Your task to perform on an android device: check android version Image 0: 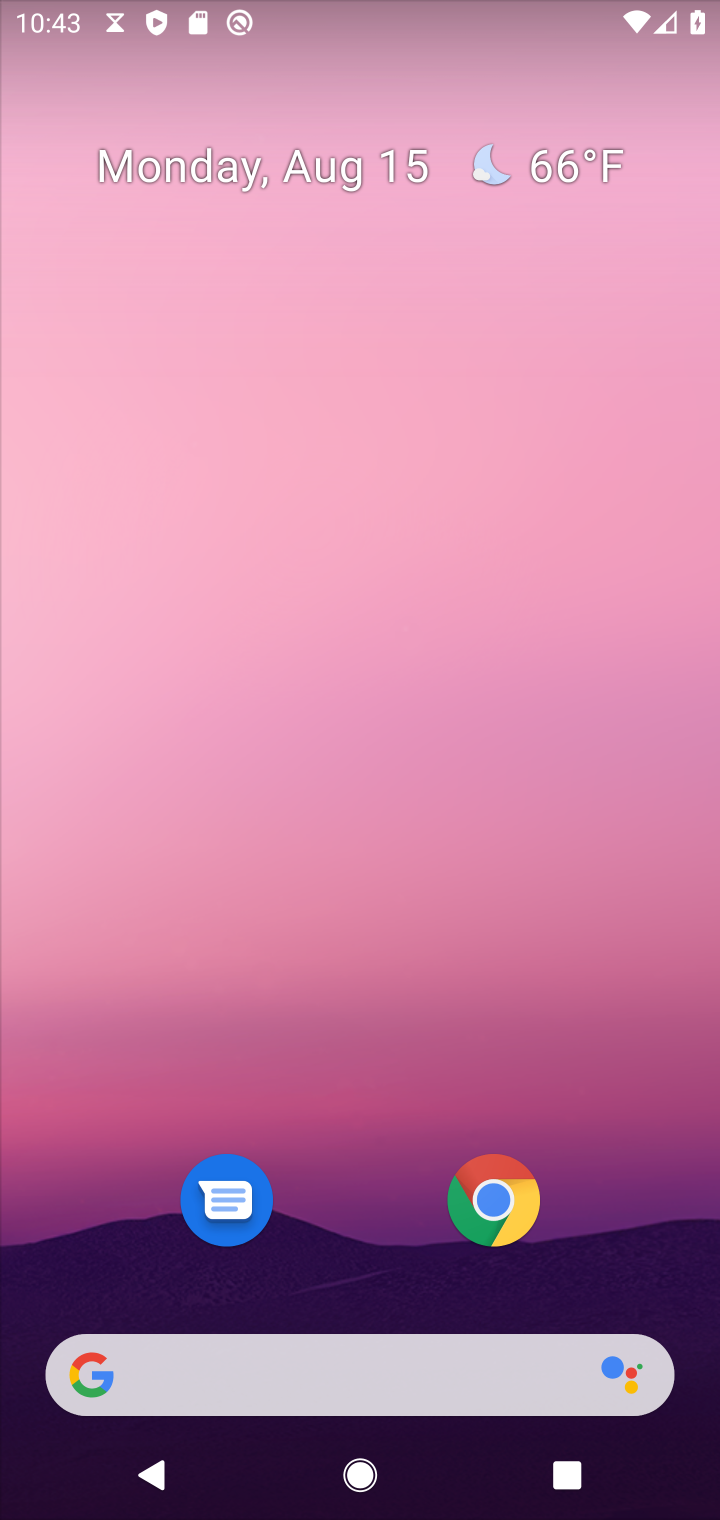
Step 0: drag from (319, 1077) to (381, 27)
Your task to perform on an android device: check android version Image 1: 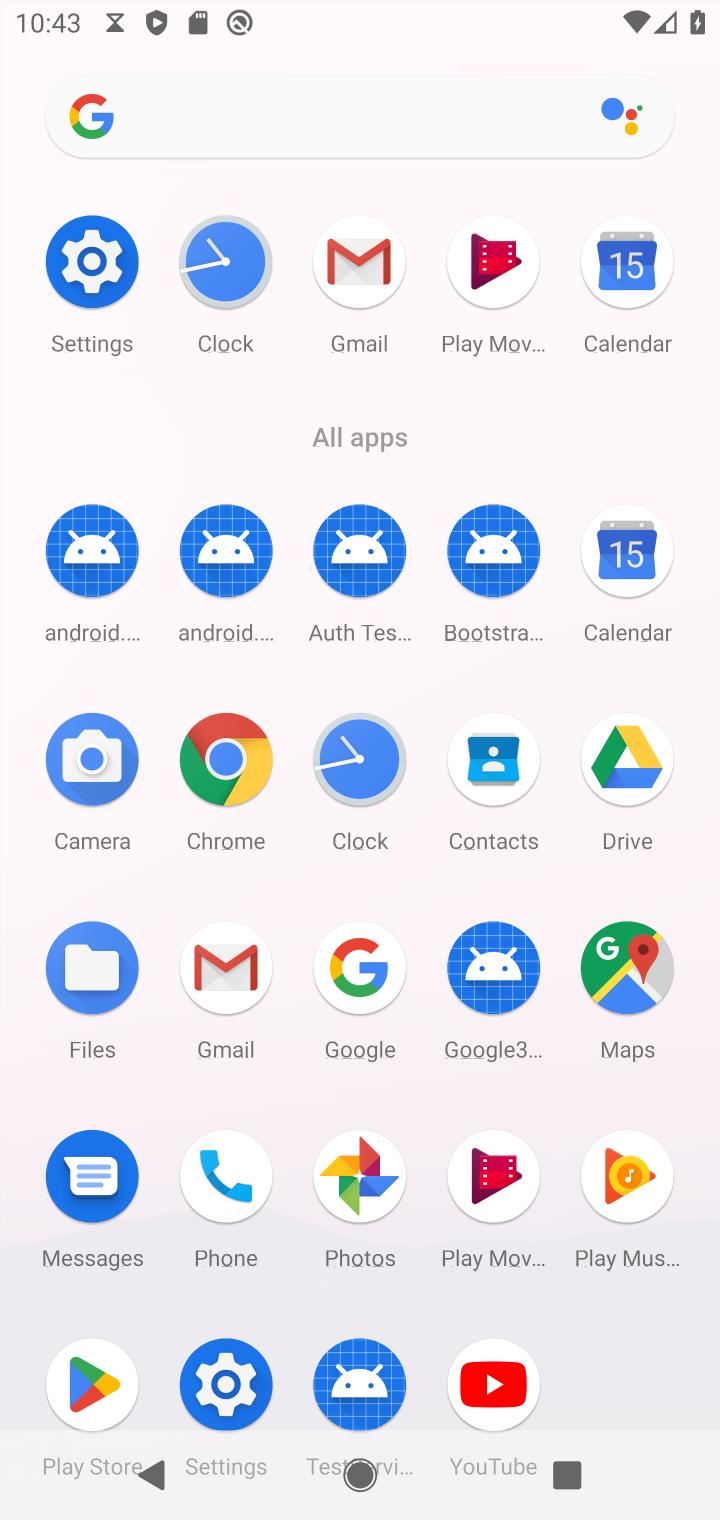
Step 1: click (217, 1355)
Your task to perform on an android device: check android version Image 2: 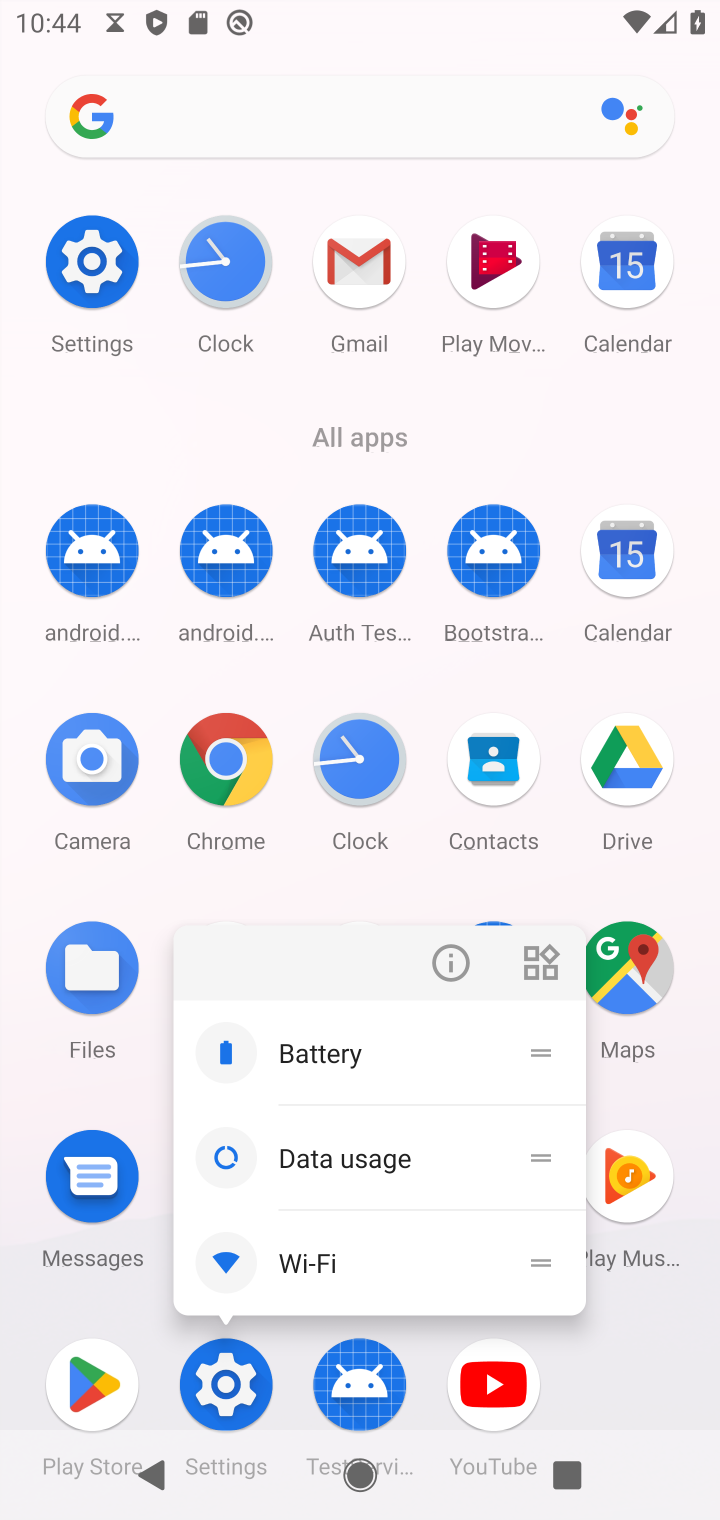
Step 2: click (259, 1392)
Your task to perform on an android device: check android version Image 3: 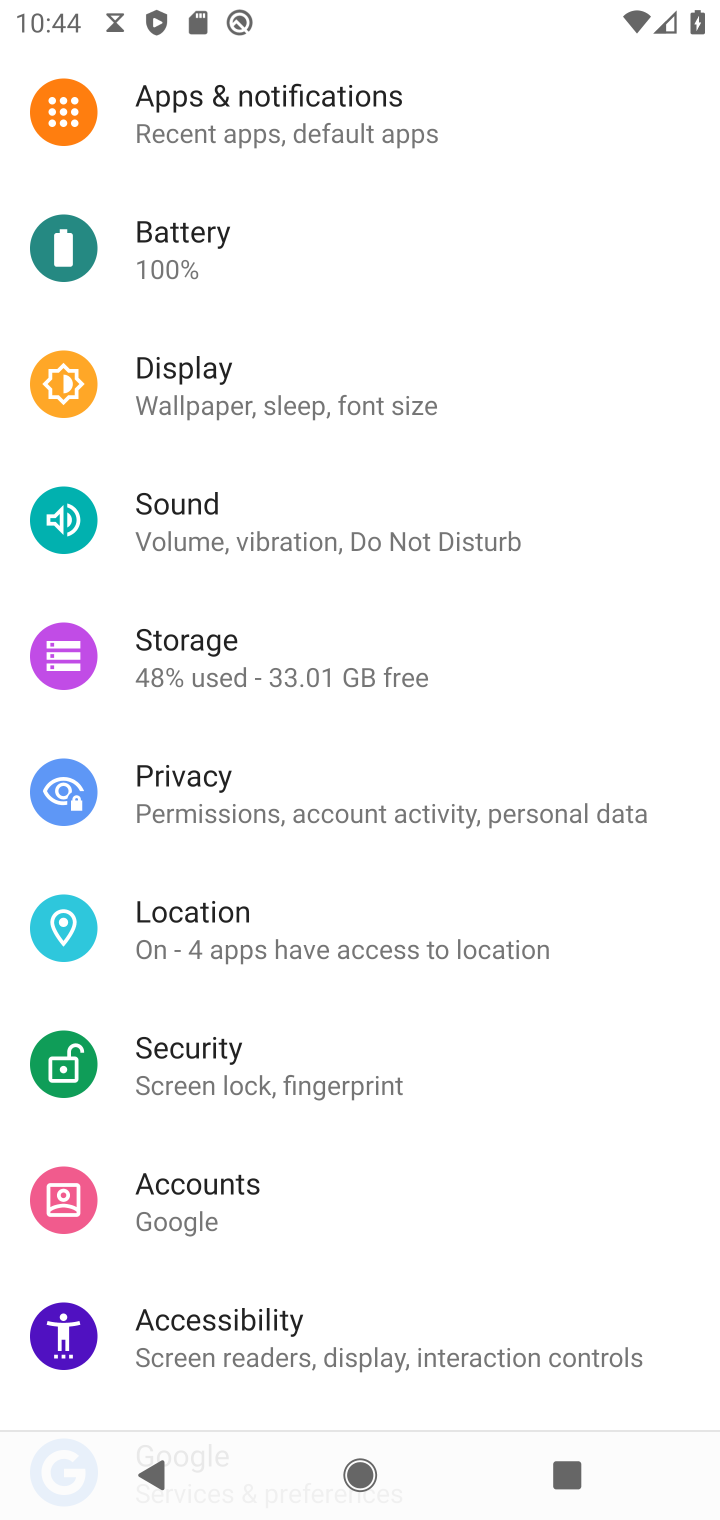
Step 3: drag from (368, 1261) to (431, 375)
Your task to perform on an android device: check android version Image 4: 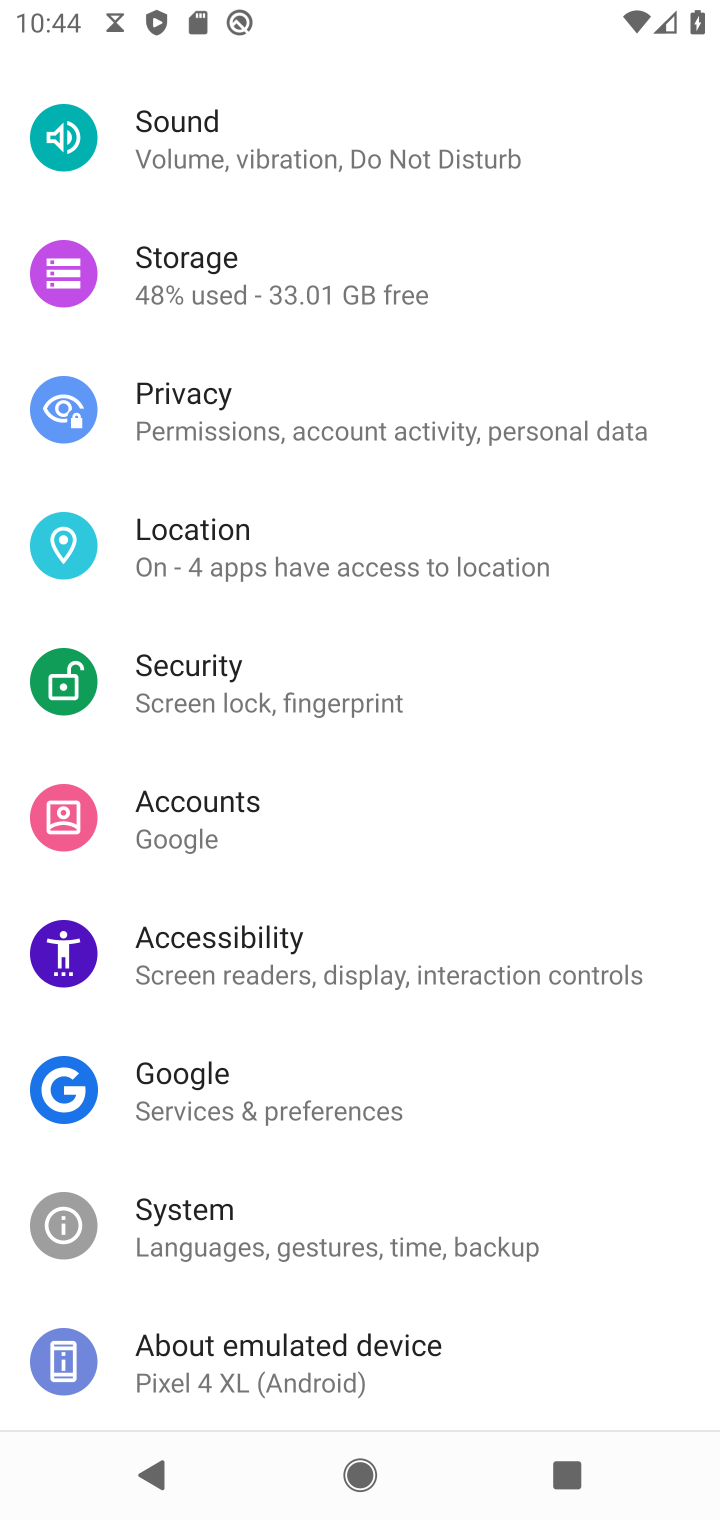
Step 4: drag from (398, 1381) to (481, 624)
Your task to perform on an android device: check android version Image 5: 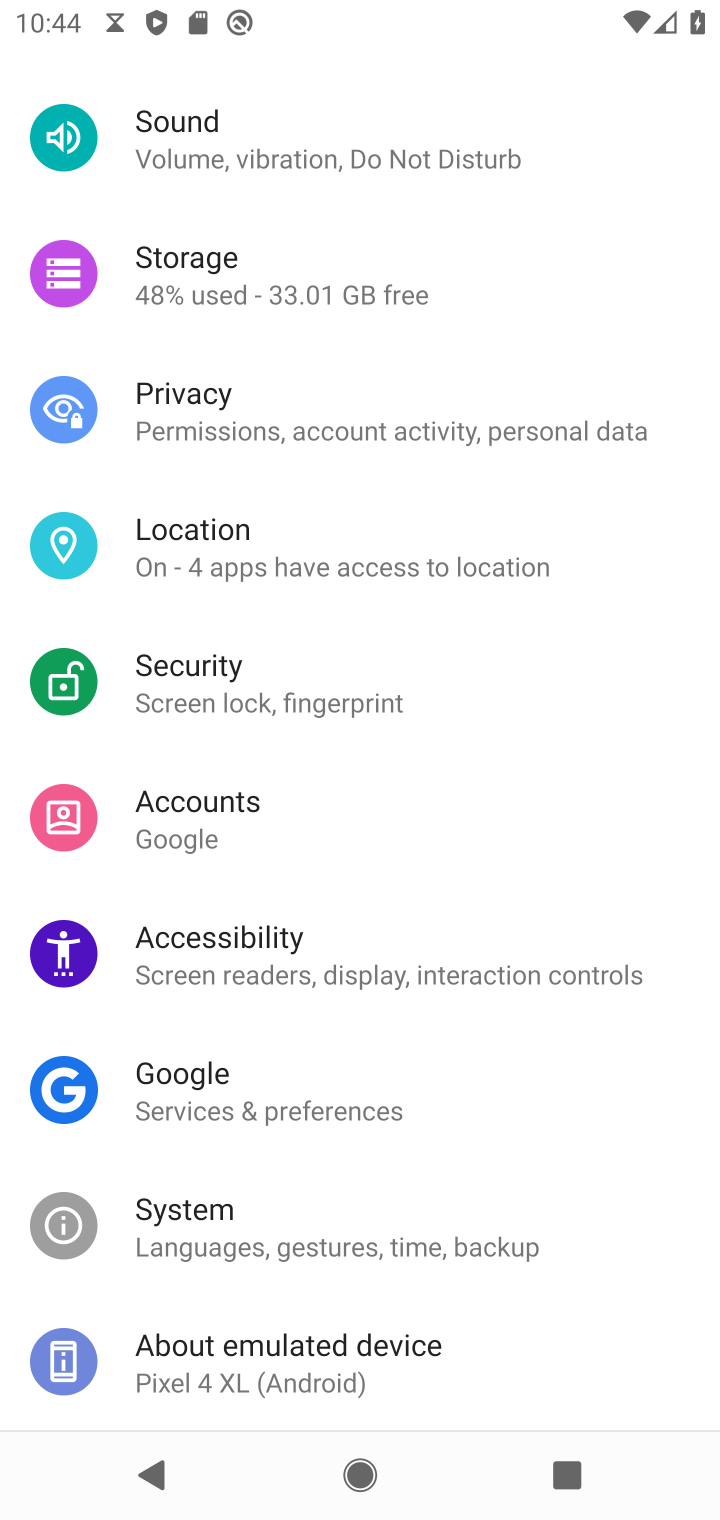
Step 5: click (297, 1350)
Your task to perform on an android device: check android version Image 6: 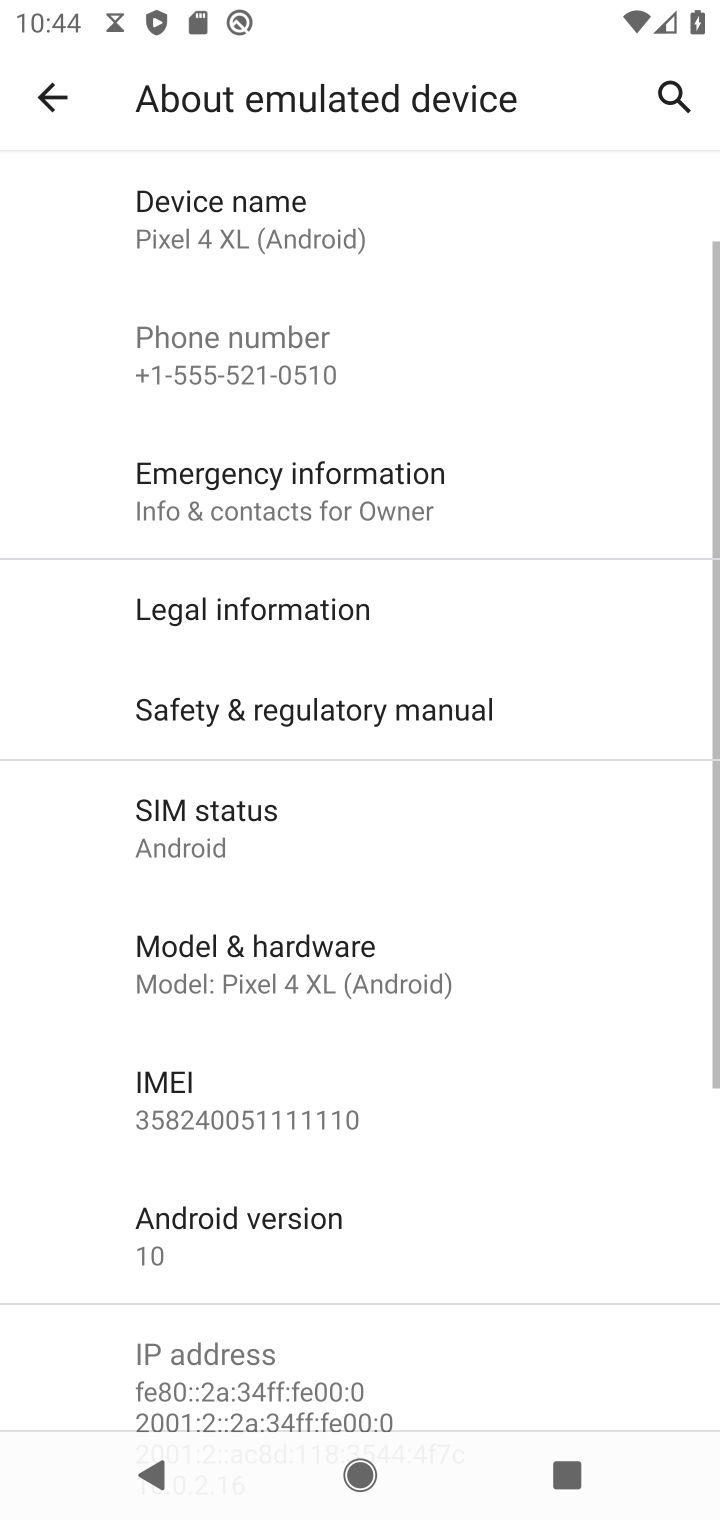
Step 6: click (232, 1263)
Your task to perform on an android device: check android version Image 7: 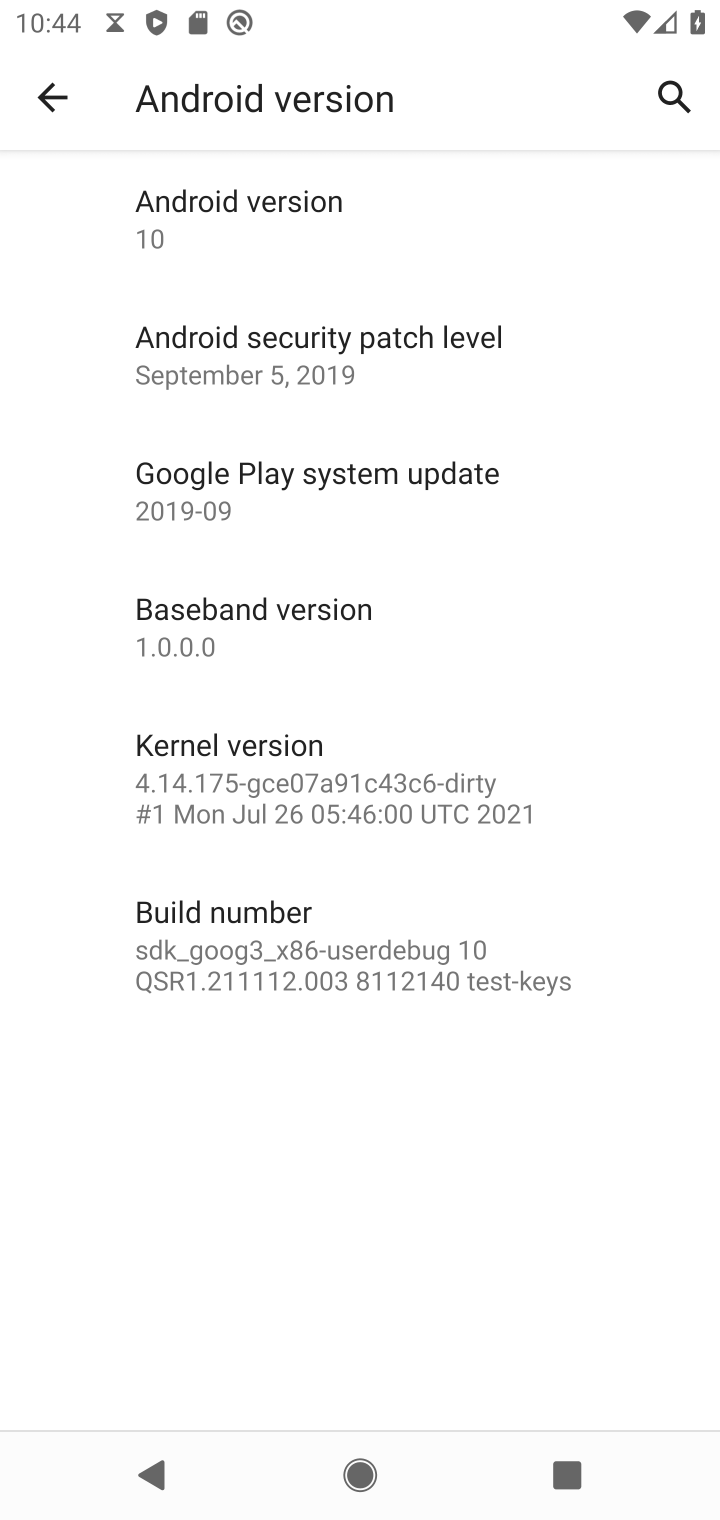
Step 7: task complete